Your task to perform on an android device: toggle notifications settings in the gmail app Image 0: 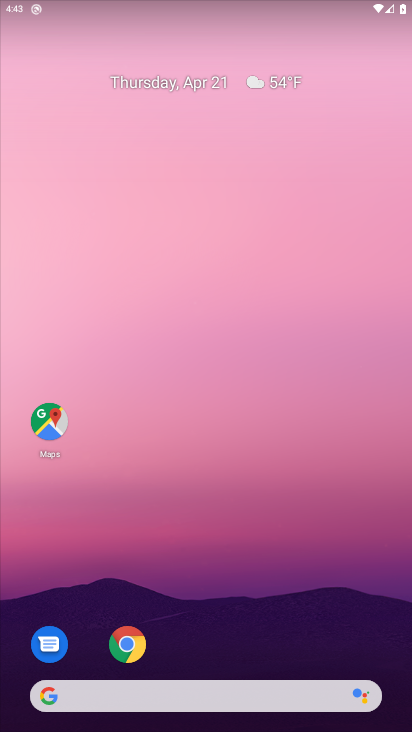
Step 0: drag from (210, 673) to (219, 205)
Your task to perform on an android device: toggle notifications settings in the gmail app Image 1: 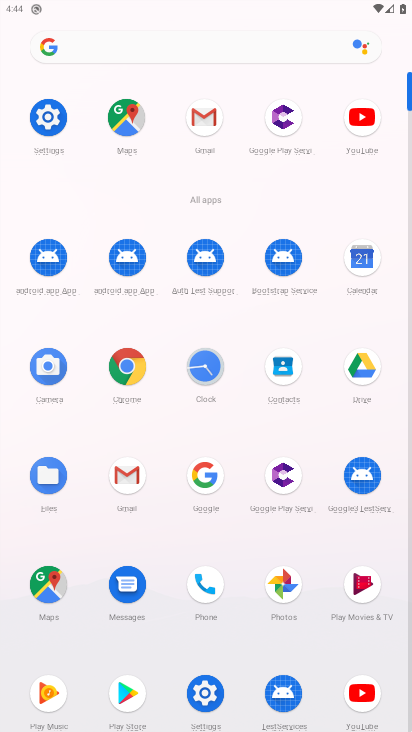
Step 1: click (196, 123)
Your task to perform on an android device: toggle notifications settings in the gmail app Image 2: 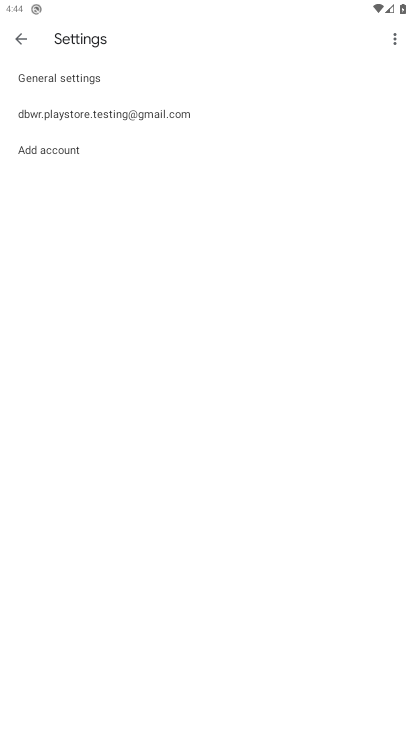
Step 2: click (64, 81)
Your task to perform on an android device: toggle notifications settings in the gmail app Image 3: 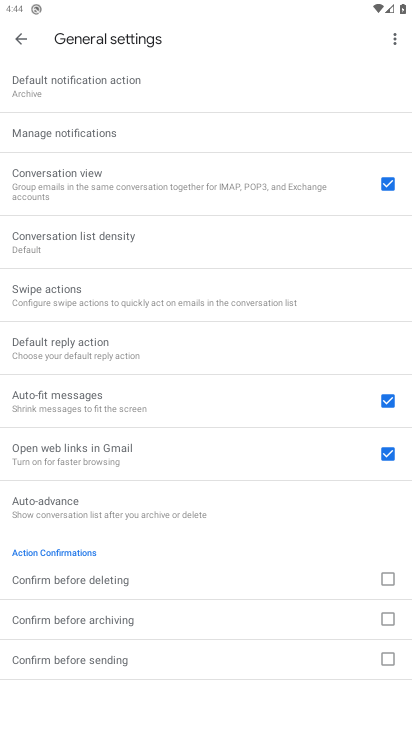
Step 3: click (63, 141)
Your task to perform on an android device: toggle notifications settings in the gmail app Image 4: 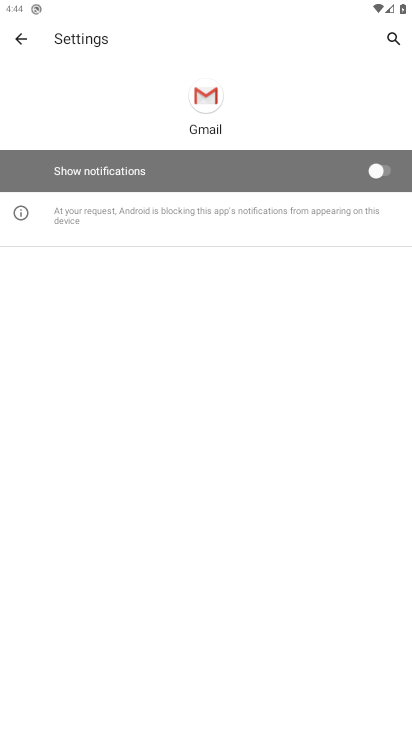
Step 4: click (382, 173)
Your task to perform on an android device: toggle notifications settings in the gmail app Image 5: 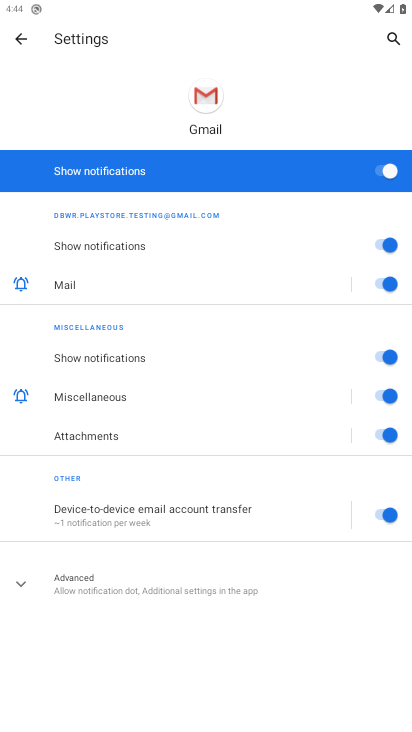
Step 5: task complete